Your task to perform on an android device: snooze an email in the gmail app Image 0: 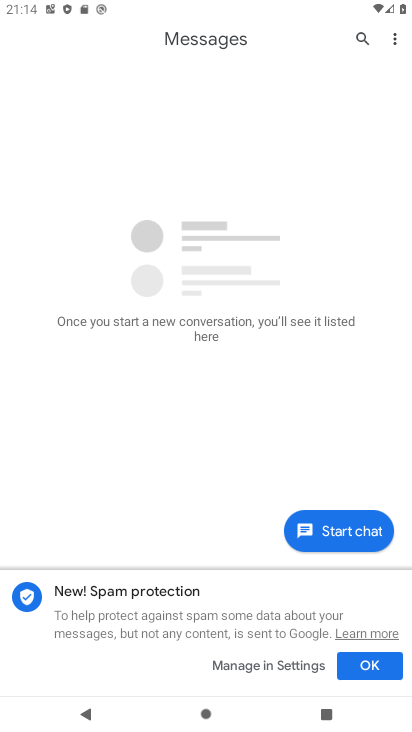
Step 0: press home button
Your task to perform on an android device: snooze an email in the gmail app Image 1: 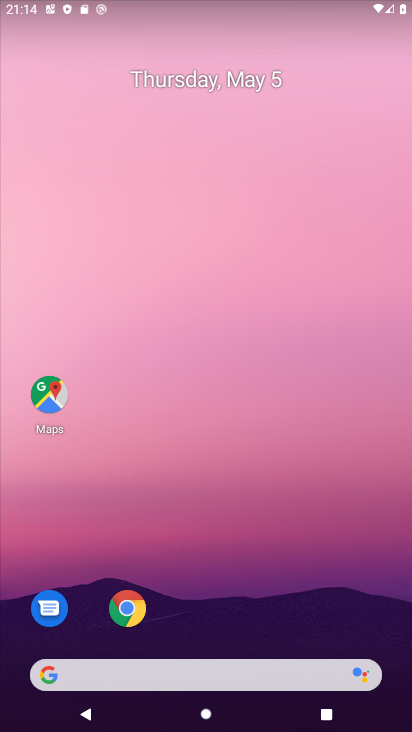
Step 1: drag from (239, 653) to (218, 15)
Your task to perform on an android device: snooze an email in the gmail app Image 2: 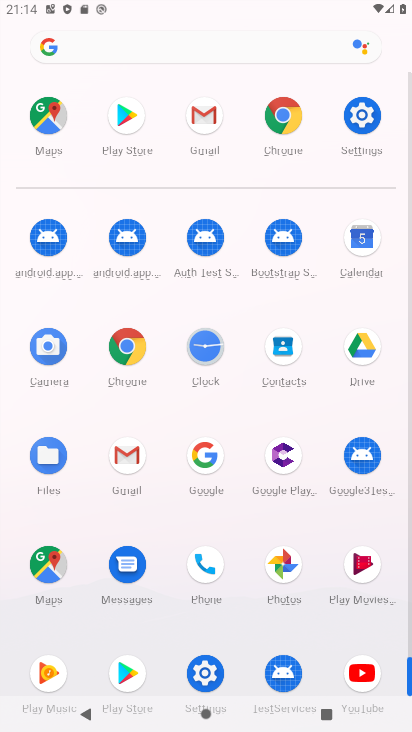
Step 2: click (128, 459)
Your task to perform on an android device: snooze an email in the gmail app Image 3: 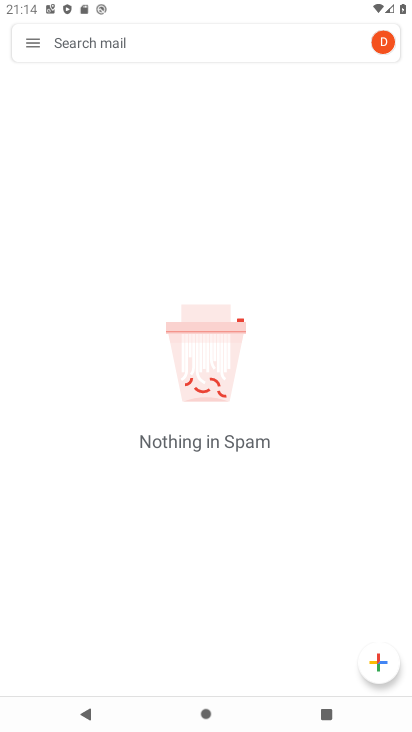
Step 3: click (30, 40)
Your task to perform on an android device: snooze an email in the gmail app Image 4: 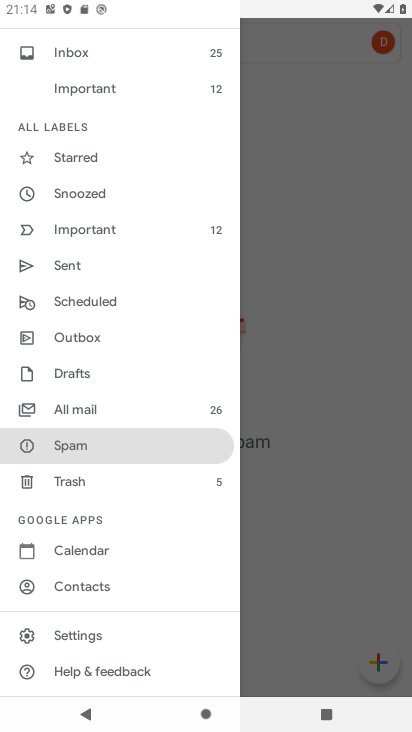
Step 4: drag from (89, 123) to (151, 491)
Your task to perform on an android device: snooze an email in the gmail app Image 5: 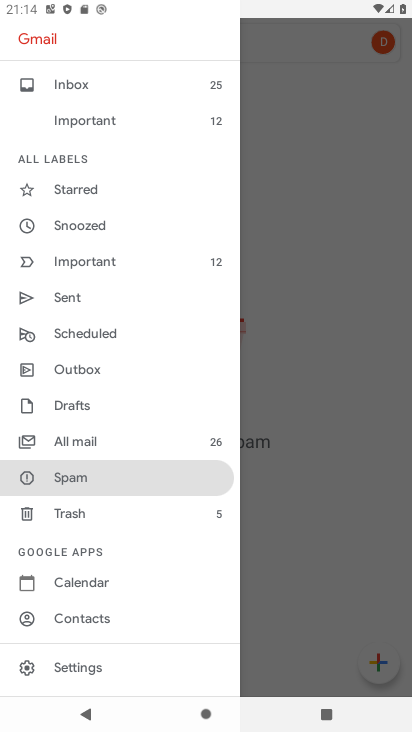
Step 5: click (152, 79)
Your task to perform on an android device: snooze an email in the gmail app Image 6: 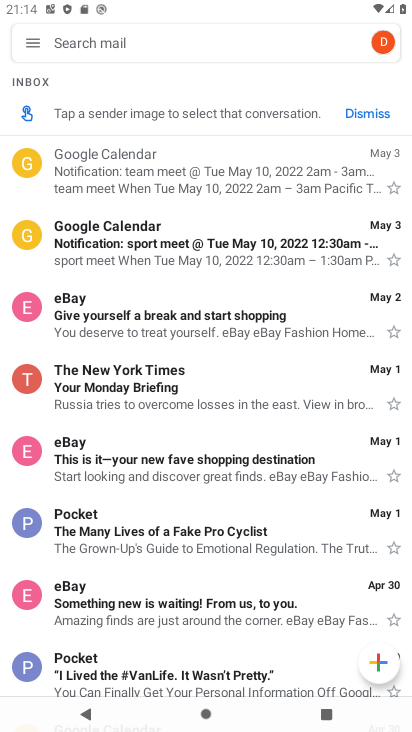
Step 6: click (254, 175)
Your task to perform on an android device: snooze an email in the gmail app Image 7: 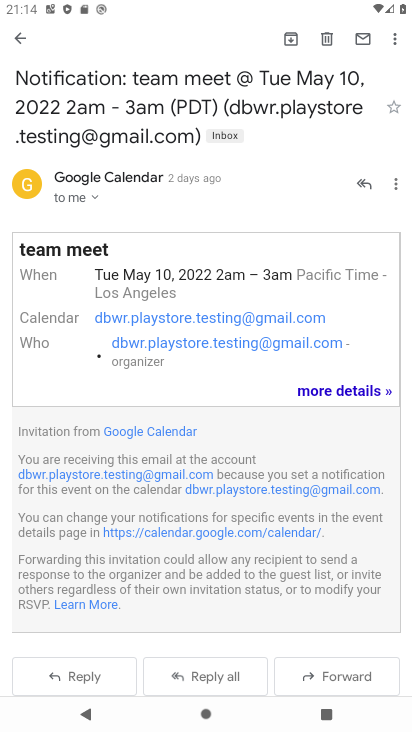
Step 7: click (391, 39)
Your task to perform on an android device: snooze an email in the gmail app Image 8: 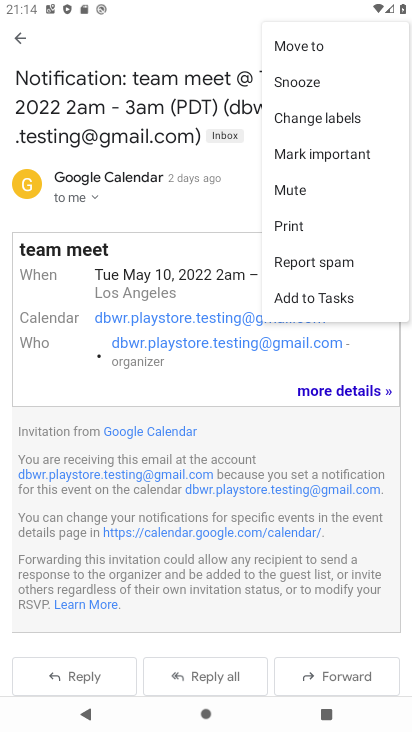
Step 8: click (312, 82)
Your task to perform on an android device: snooze an email in the gmail app Image 9: 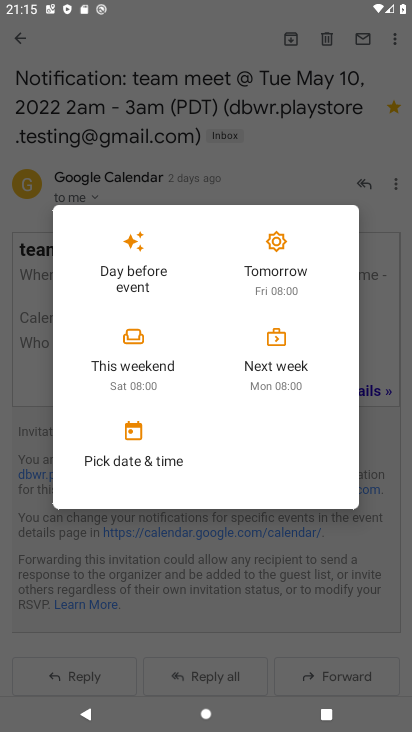
Step 9: click (141, 346)
Your task to perform on an android device: snooze an email in the gmail app Image 10: 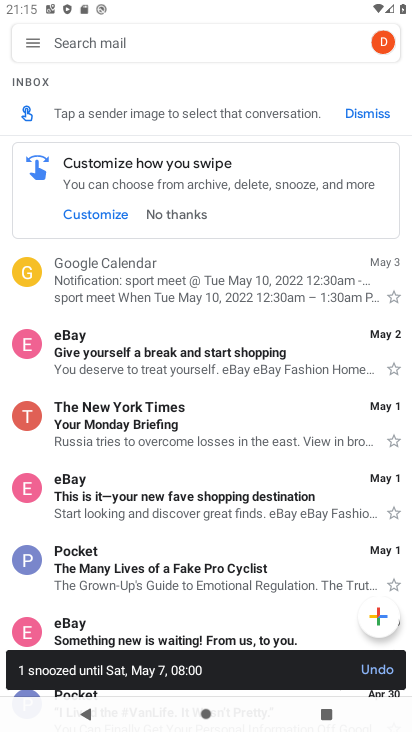
Step 10: task complete